Your task to perform on an android device: uninstall "Gmail" Image 0: 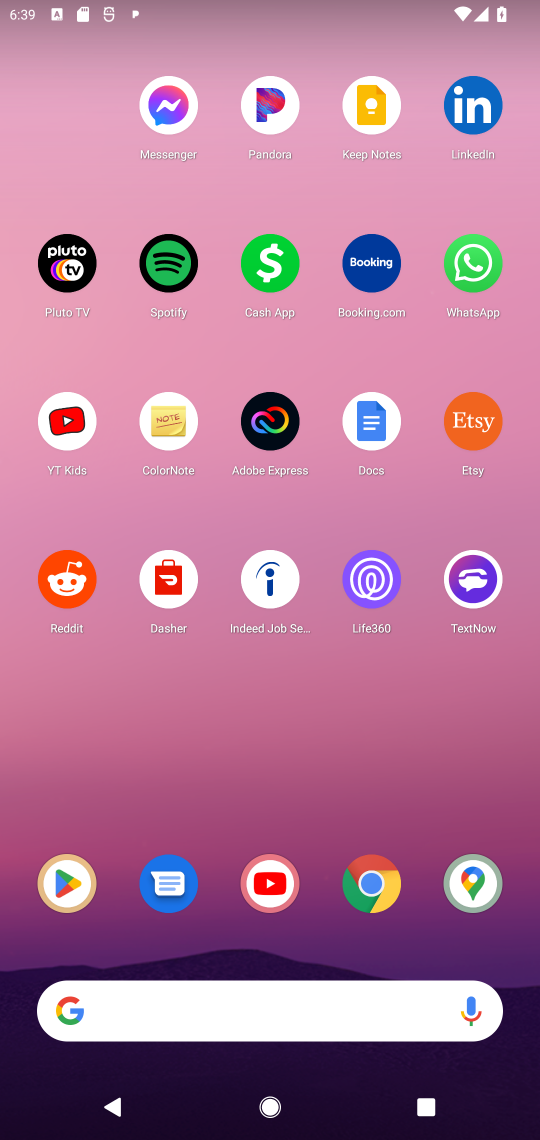
Step 0: click (56, 900)
Your task to perform on an android device: uninstall "Gmail" Image 1: 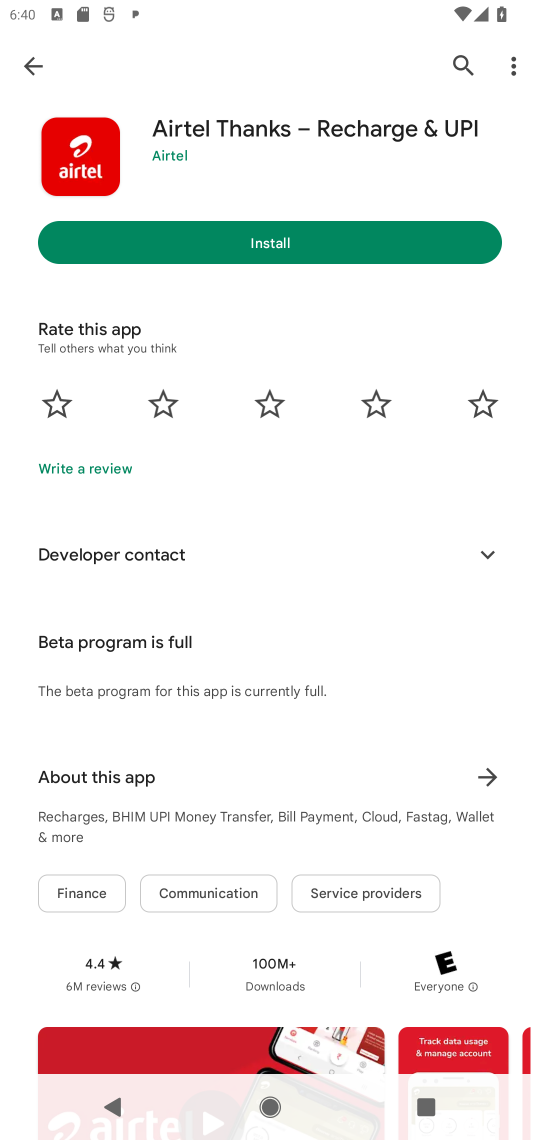
Step 1: click (31, 73)
Your task to perform on an android device: uninstall "Gmail" Image 2: 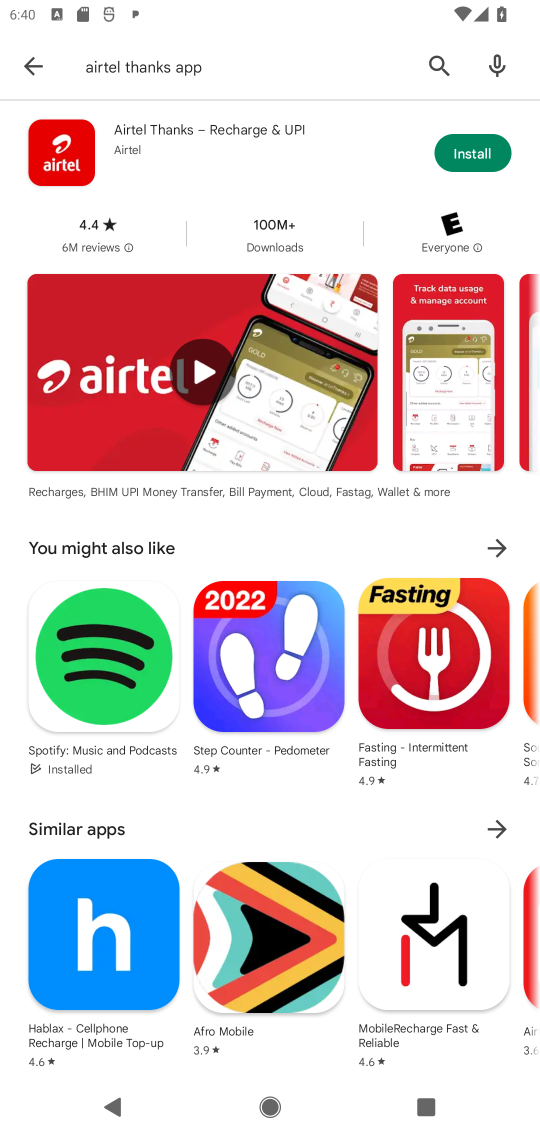
Step 2: click (38, 69)
Your task to perform on an android device: uninstall "Gmail" Image 3: 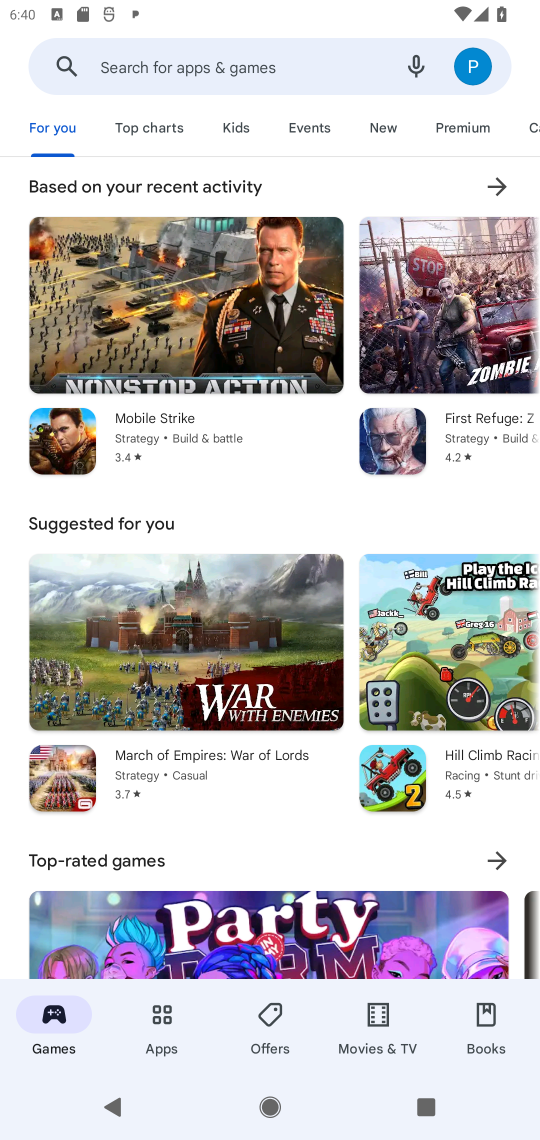
Step 3: click (140, 55)
Your task to perform on an android device: uninstall "Gmail" Image 4: 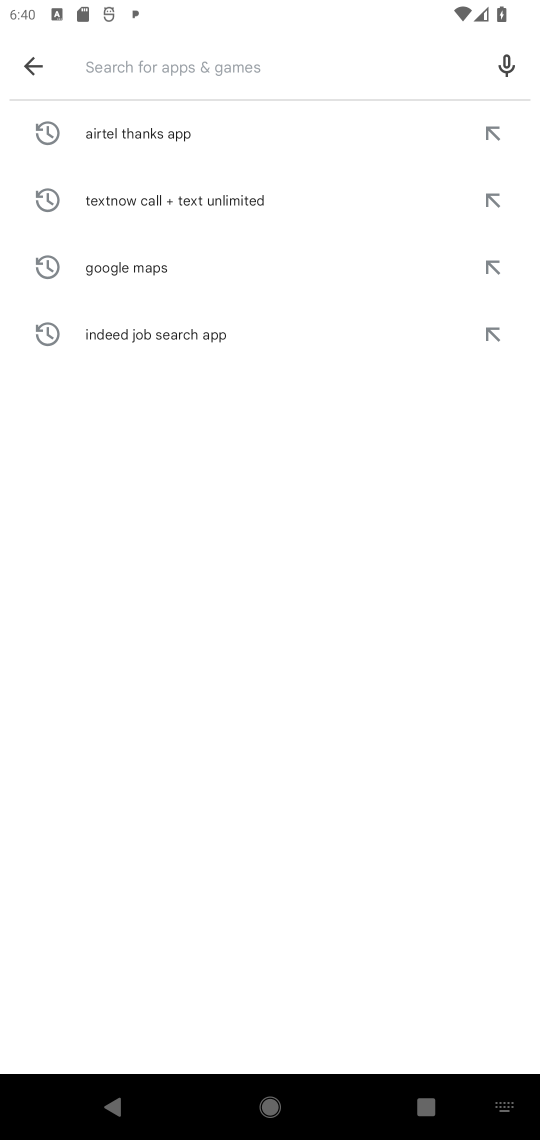
Step 4: type "gmail.com"
Your task to perform on an android device: uninstall "Gmail" Image 5: 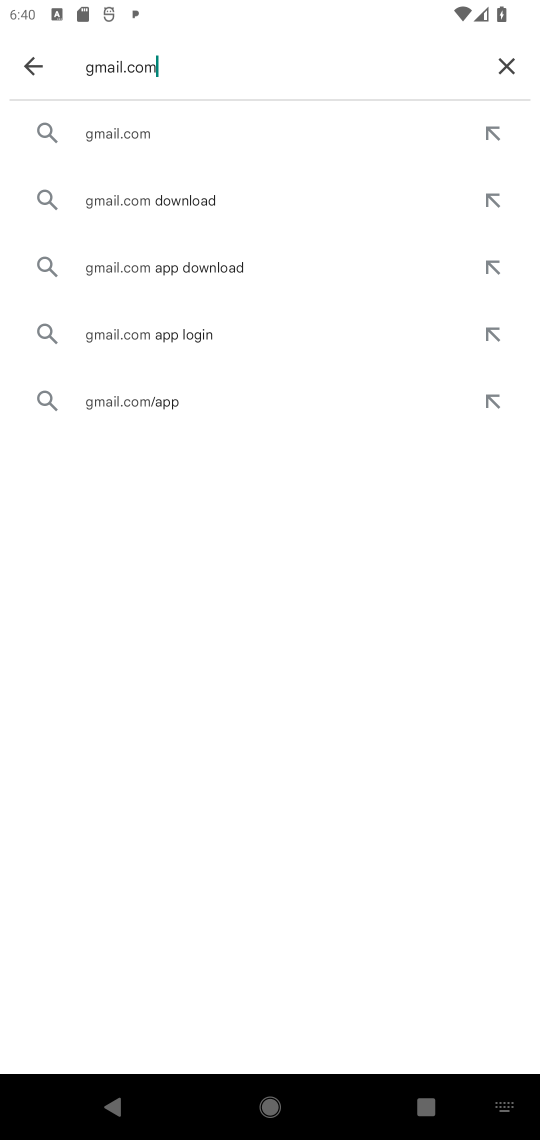
Step 5: click (128, 124)
Your task to perform on an android device: uninstall "Gmail" Image 6: 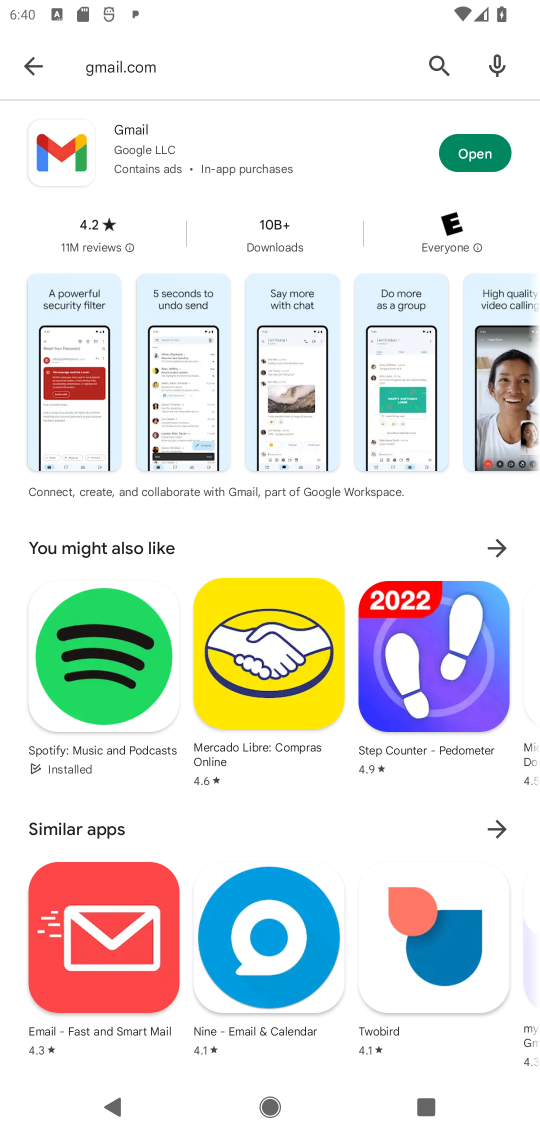
Step 6: click (98, 137)
Your task to perform on an android device: uninstall "Gmail" Image 7: 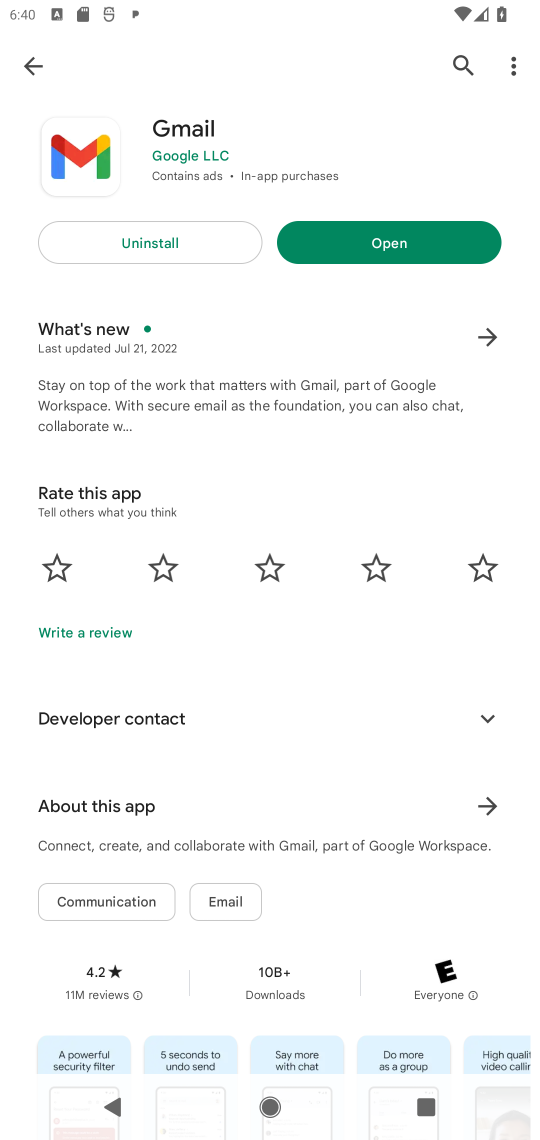
Step 7: click (108, 241)
Your task to perform on an android device: uninstall "Gmail" Image 8: 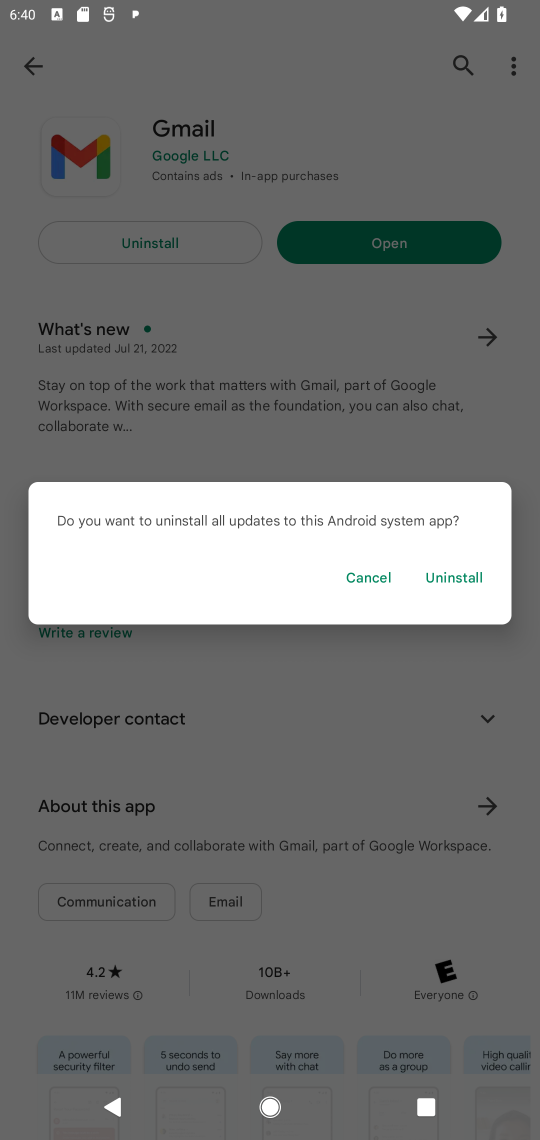
Step 8: click (474, 580)
Your task to perform on an android device: uninstall "Gmail" Image 9: 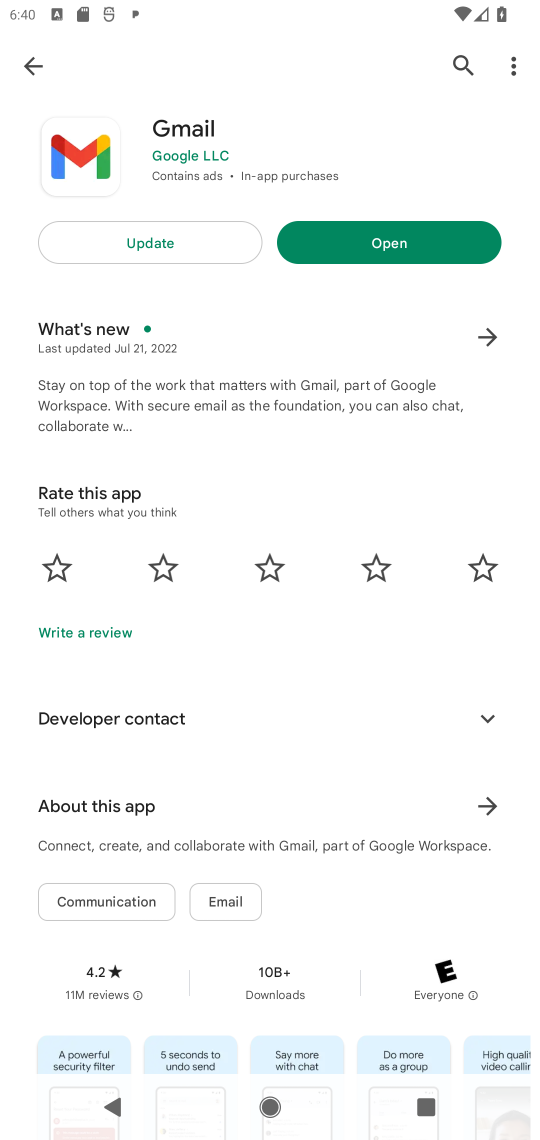
Step 9: task complete